Your task to perform on an android device: Go to Maps Image 0: 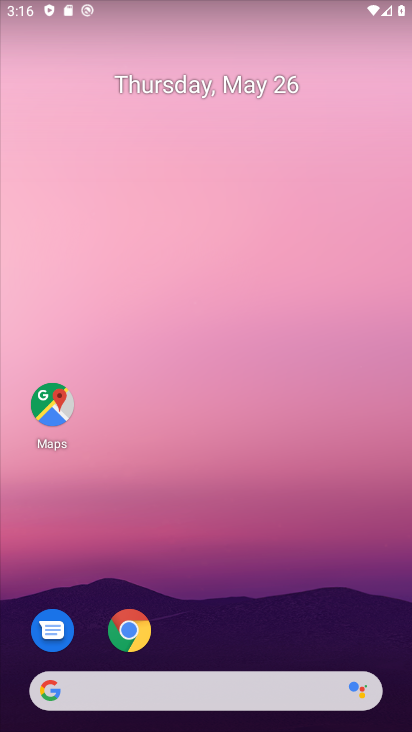
Step 0: click (52, 406)
Your task to perform on an android device: Go to Maps Image 1: 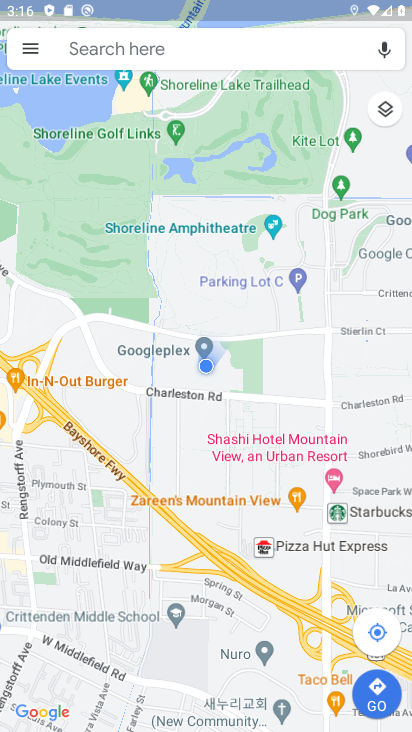
Step 1: task complete